Your task to perform on an android device: Open the stopwatch Image 0: 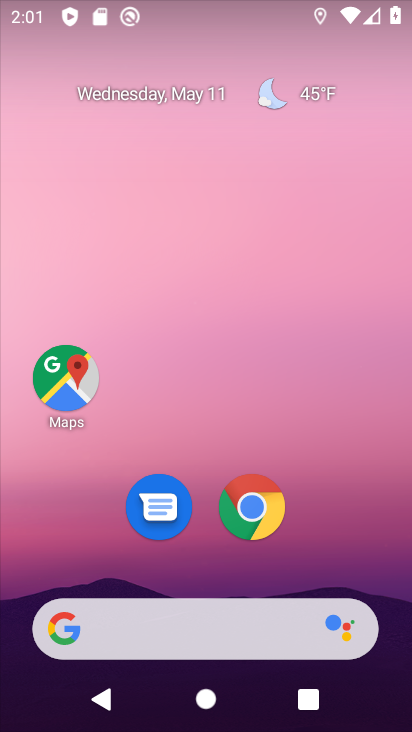
Step 0: drag from (358, 556) to (252, 27)
Your task to perform on an android device: Open the stopwatch Image 1: 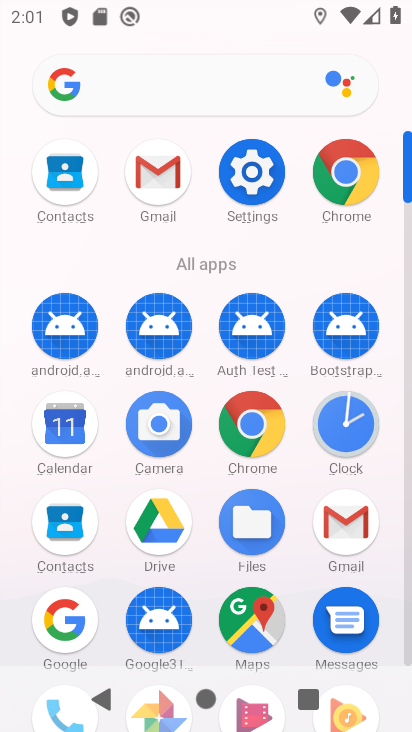
Step 1: drag from (4, 448) to (4, 179)
Your task to perform on an android device: Open the stopwatch Image 2: 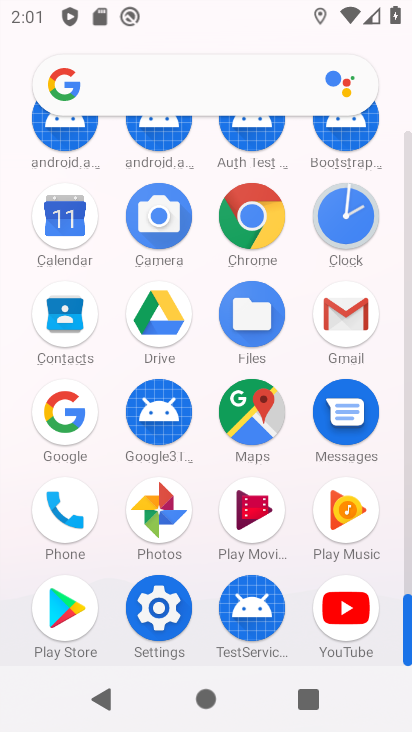
Step 2: click (344, 216)
Your task to perform on an android device: Open the stopwatch Image 3: 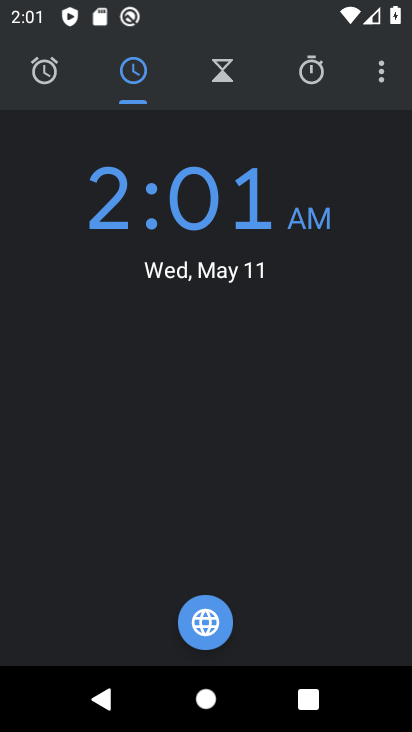
Step 3: click (314, 71)
Your task to perform on an android device: Open the stopwatch Image 4: 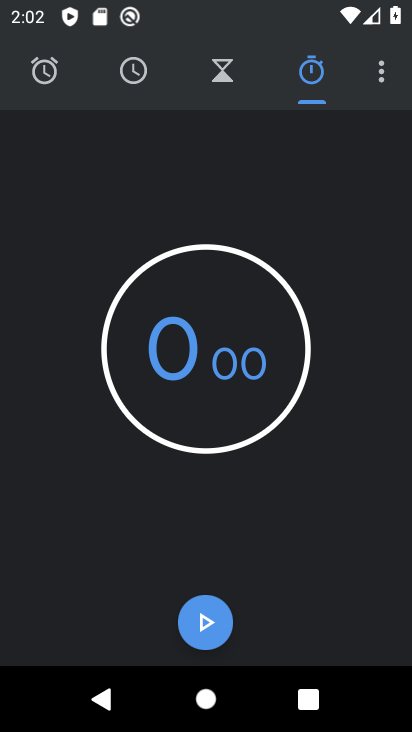
Step 4: task complete